Your task to perform on an android device: turn on airplane mode Image 0: 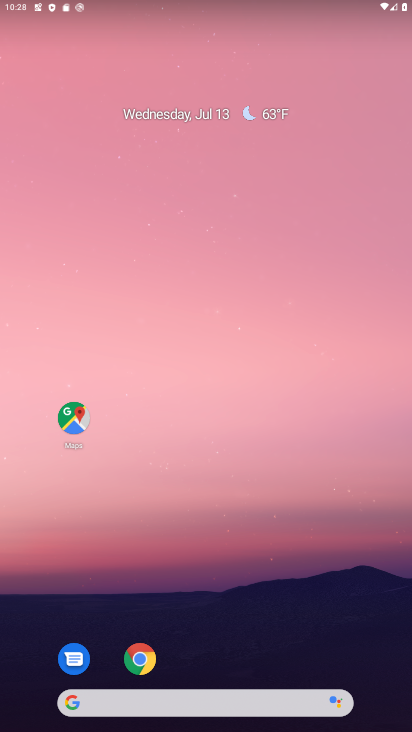
Step 0: drag from (309, 585) to (226, 178)
Your task to perform on an android device: turn on airplane mode Image 1: 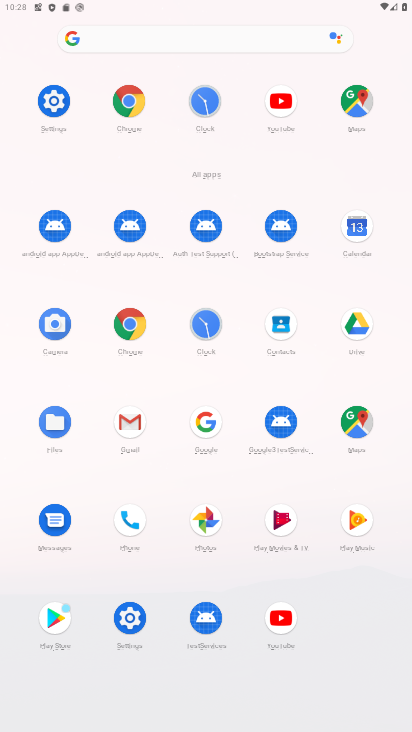
Step 1: click (52, 94)
Your task to perform on an android device: turn on airplane mode Image 2: 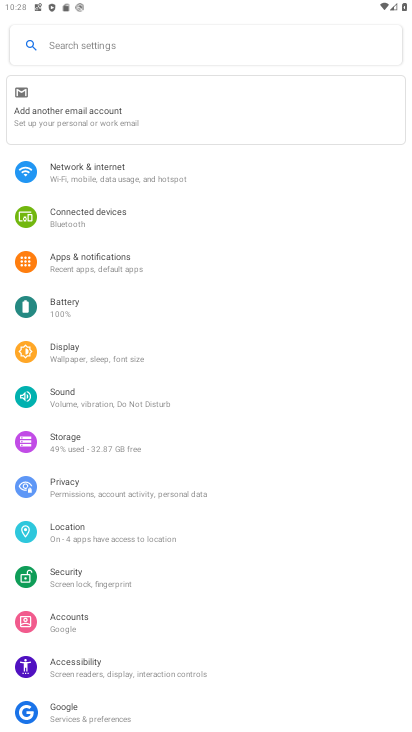
Step 2: click (118, 163)
Your task to perform on an android device: turn on airplane mode Image 3: 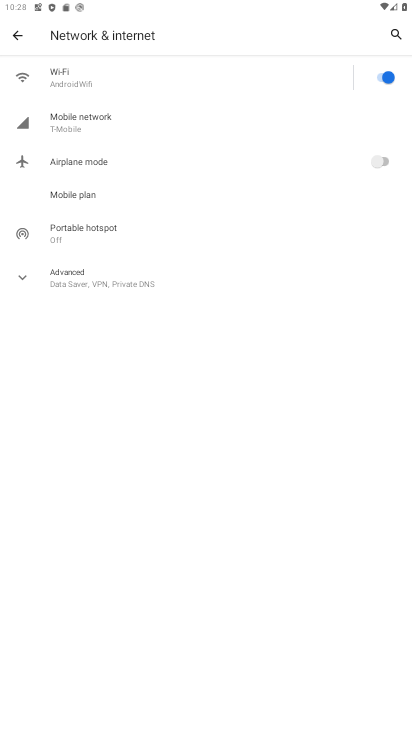
Step 3: click (380, 156)
Your task to perform on an android device: turn on airplane mode Image 4: 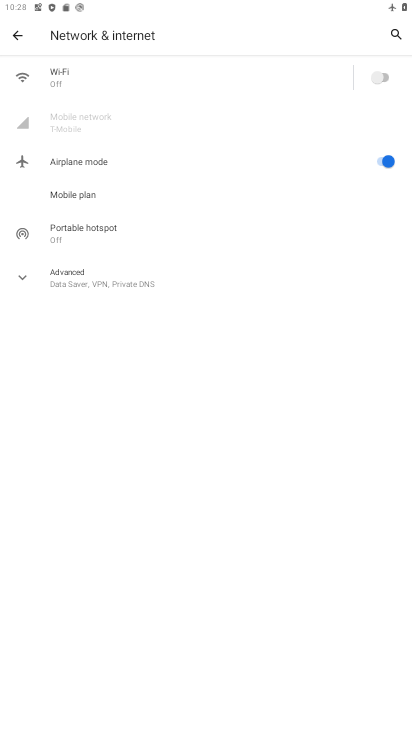
Step 4: task complete